Your task to perform on an android device: What's the weather going to be this weekend? Image 0: 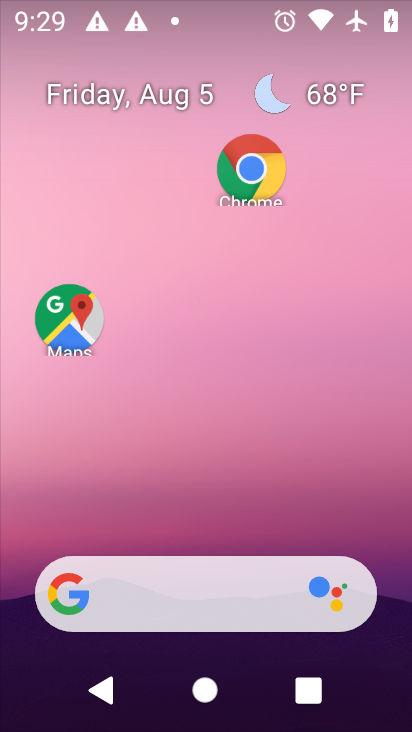
Step 0: drag from (223, 500) to (223, 189)
Your task to perform on an android device: What's the weather going to be this weekend? Image 1: 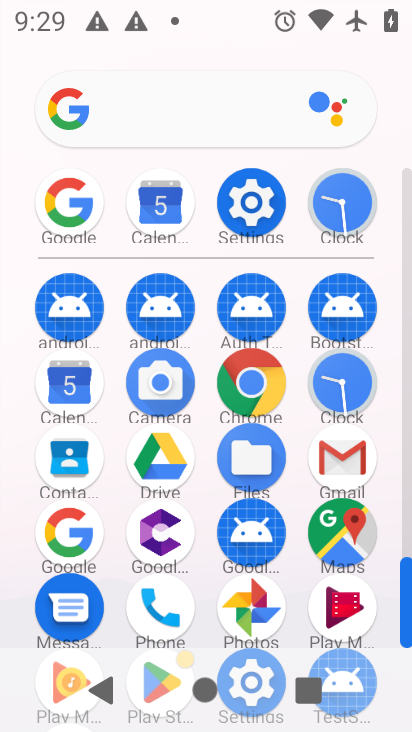
Step 1: click (76, 537)
Your task to perform on an android device: What's the weather going to be this weekend? Image 2: 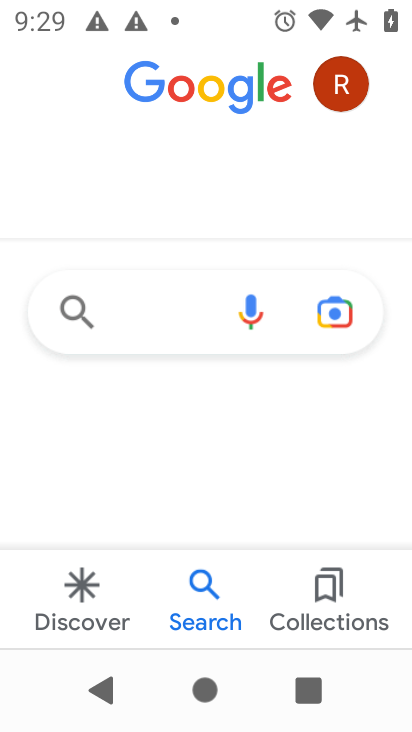
Step 2: click (145, 313)
Your task to perform on an android device: What's the weather going to be this weekend? Image 3: 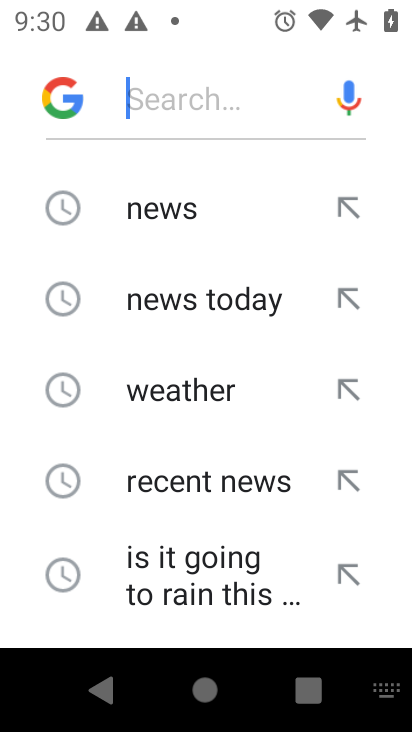
Step 3: click (186, 382)
Your task to perform on an android device: What's the weather going to be this weekend? Image 4: 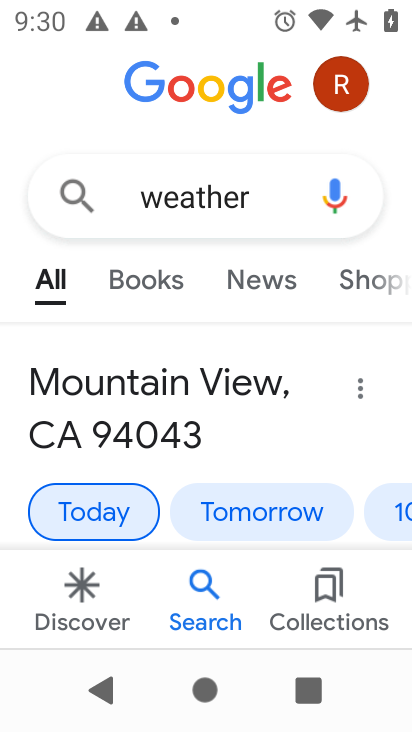
Step 4: drag from (211, 424) to (196, 120)
Your task to perform on an android device: What's the weather going to be this weekend? Image 5: 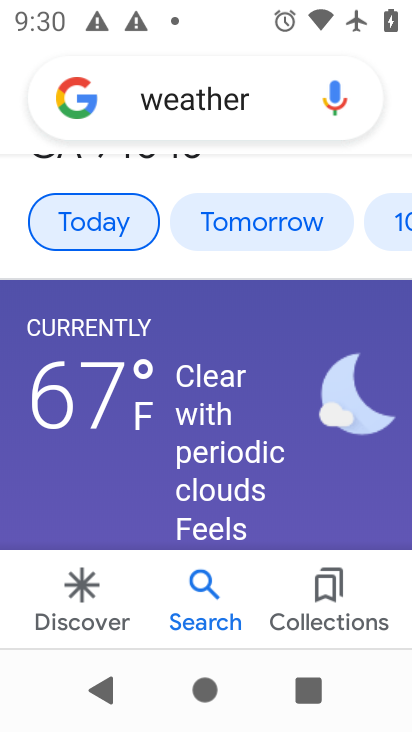
Step 5: click (387, 227)
Your task to perform on an android device: What's the weather going to be this weekend? Image 6: 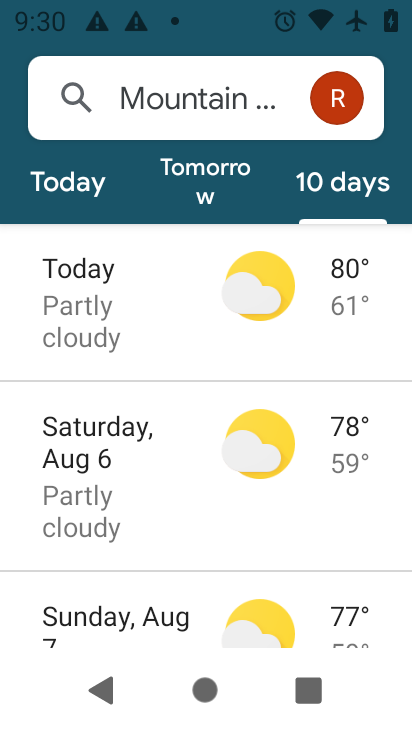
Step 6: task complete